Your task to perform on an android device: When is my next meeting? Image 0: 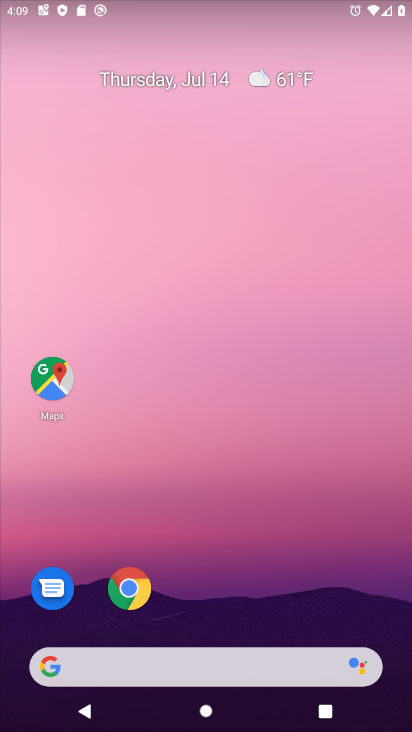
Step 0: press home button
Your task to perform on an android device: When is my next meeting? Image 1: 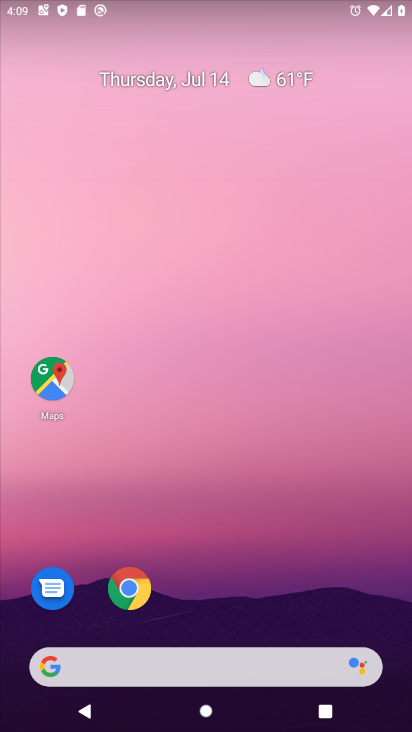
Step 1: drag from (276, 602) to (219, 5)
Your task to perform on an android device: When is my next meeting? Image 2: 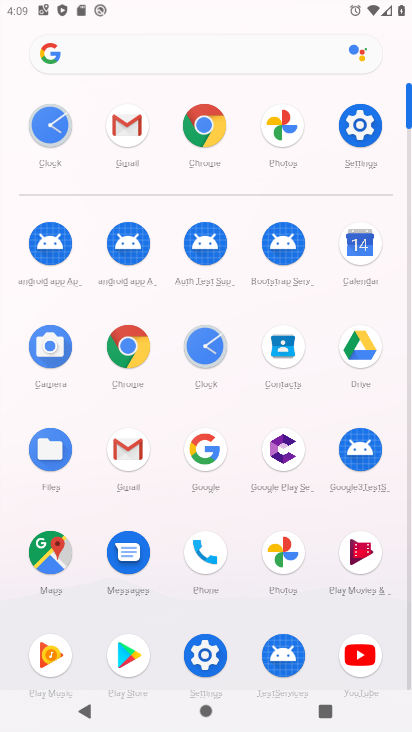
Step 2: click (368, 249)
Your task to perform on an android device: When is my next meeting? Image 3: 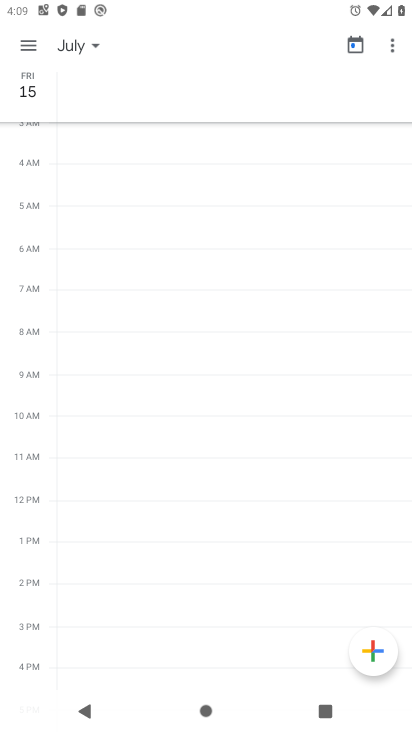
Step 3: click (24, 41)
Your task to perform on an android device: When is my next meeting? Image 4: 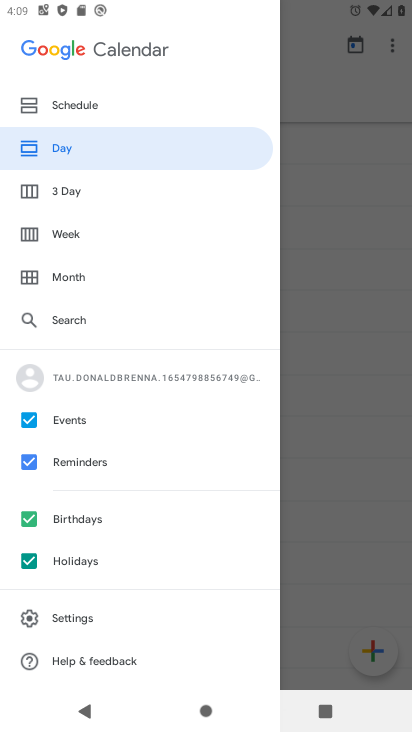
Step 4: click (70, 109)
Your task to perform on an android device: When is my next meeting? Image 5: 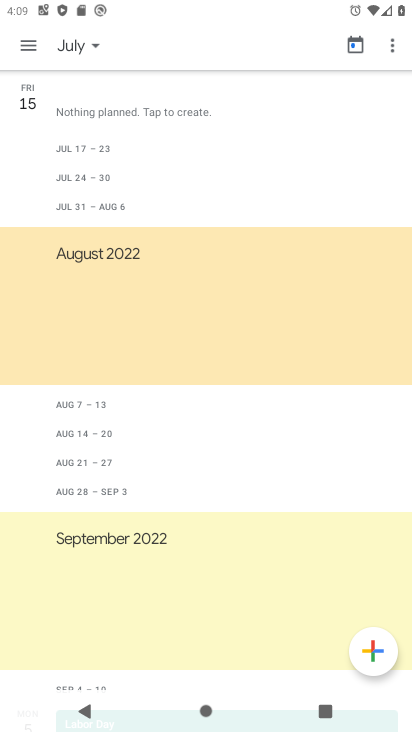
Step 5: task complete